Your task to perform on an android device: add a label to a message in the gmail app Image 0: 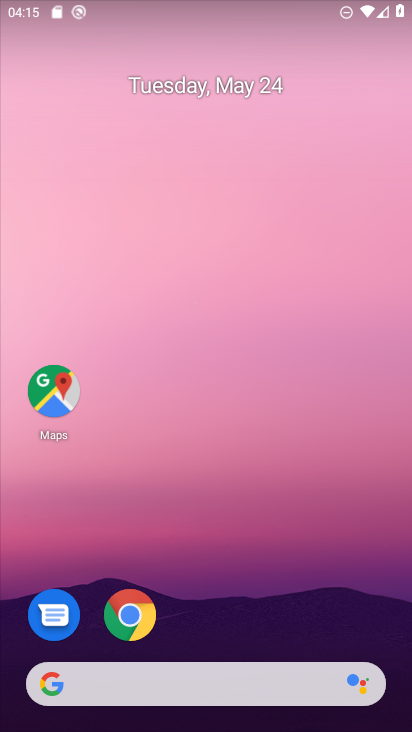
Step 0: drag from (247, 585) to (214, 32)
Your task to perform on an android device: add a label to a message in the gmail app Image 1: 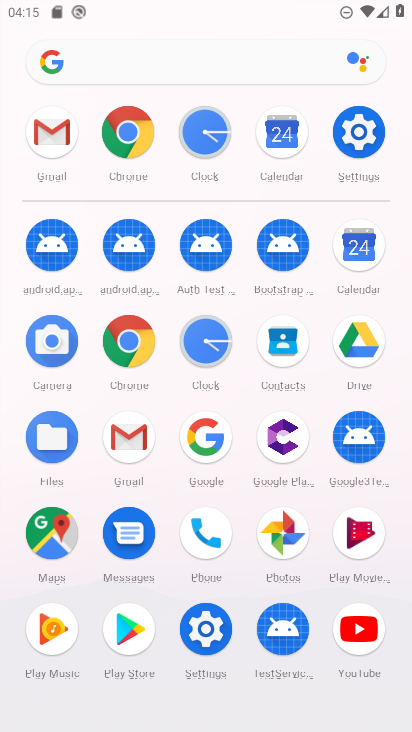
Step 1: click (122, 436)
Your task to perform on an android device: add a label to a message in the gmail app Image 2: 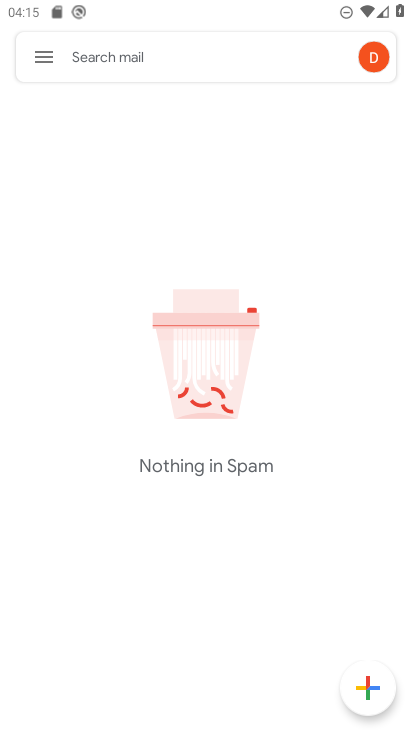
Step 2: click (54, 47)
Your task to perform on an android device: add a label to a message in the gmail app Image 3: 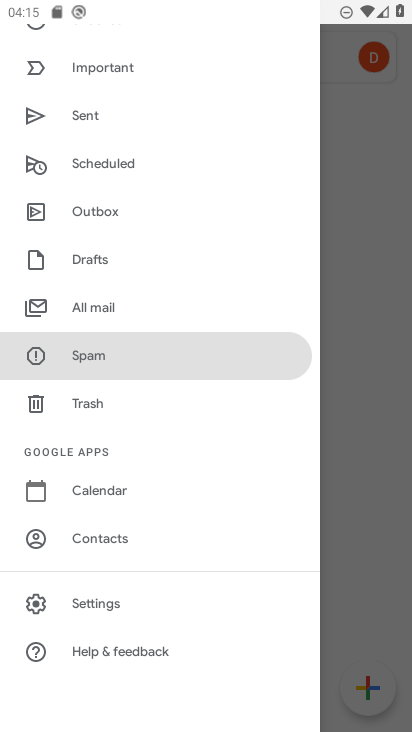
Step 3: drag from (167, 130) to (103, 648)
Your task to perform on an android device: add a label to a message in the gmail app Image 4: 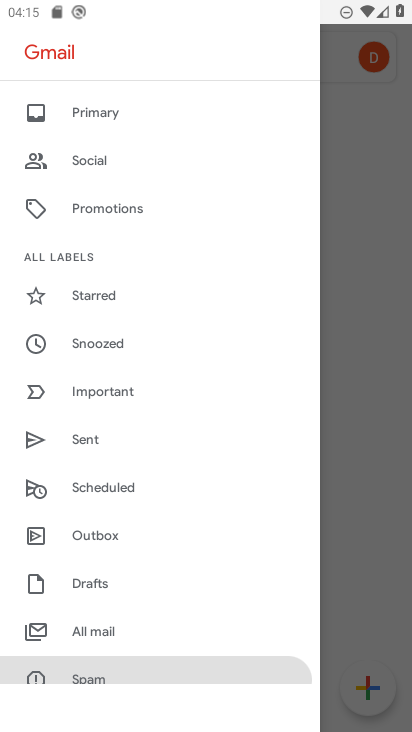
Step 4: click (110, 114)
Your task to perform on an android device: add a label to a message in the gmail app Image 5: 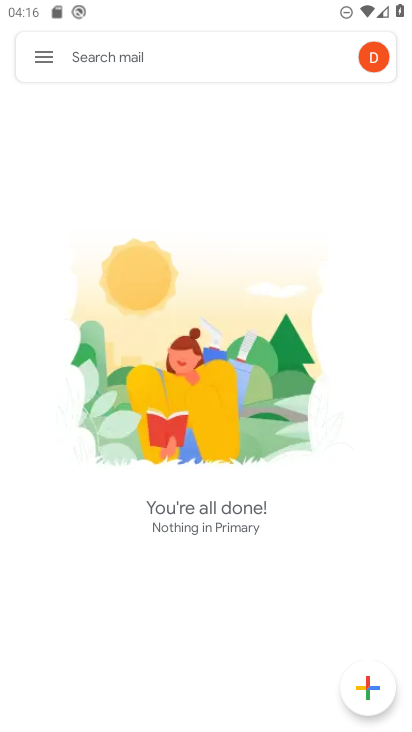
Step 5: click (46, 64)
Your task to perform on an android device: add a label to a message in the gmail app Image 6: 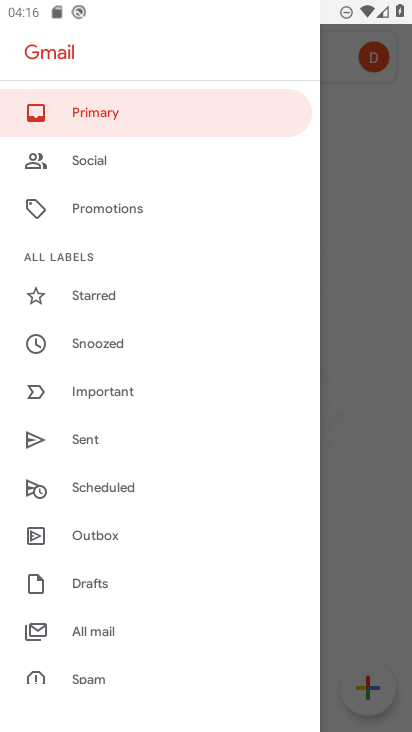
Step 6: click (73, 623)
Your task to perform on an android device: add a label to a message in the gmail app Image 7: 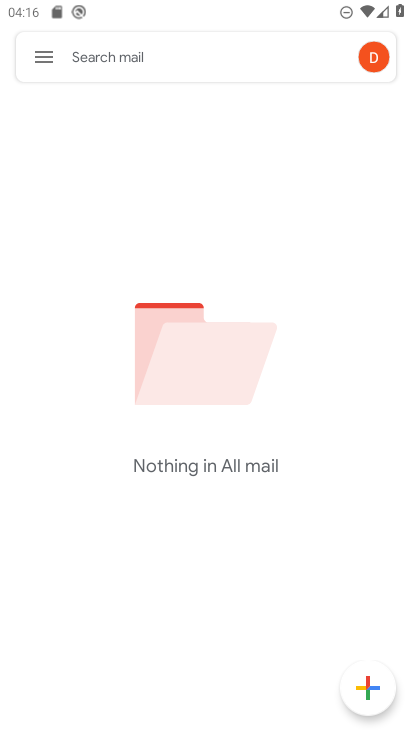
Step 7: task complete